Your task to perform on an android device: find snoozed emails in the gmail app Image 0: 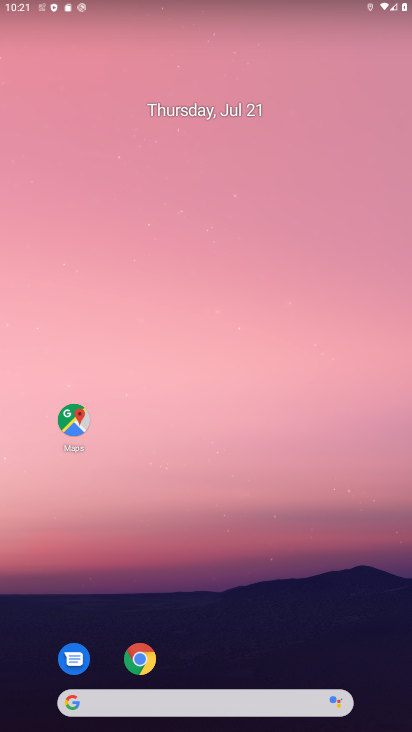
Step 0: drag from (223, 677) to (62, 132)
Your task to perform on an android device: find snoozed emails in the gmail app Image 1: 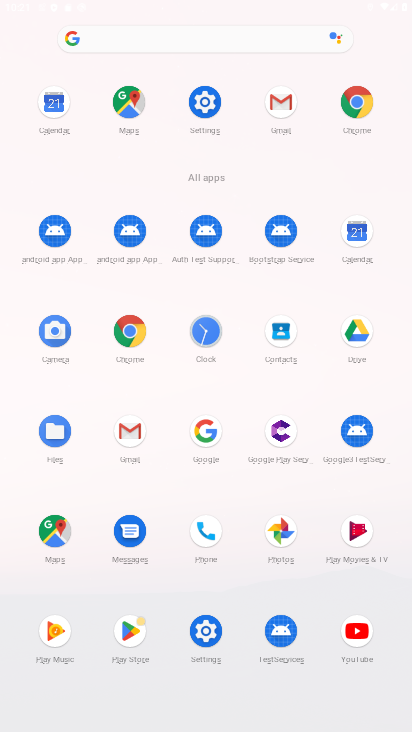
Step 1: click (134, 423)
Your task to perform on an android device: find snoozed emails in the gmail app Image 2: 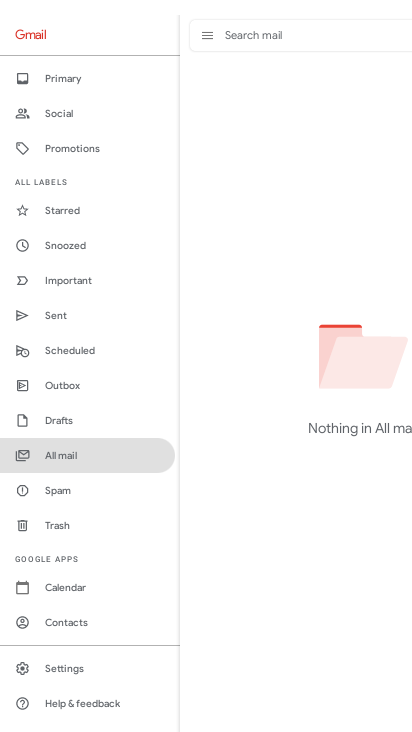
Step 2: click (60, 242)
Your task to perform on an android device: find snoozed emails in the gmail app Image 3: 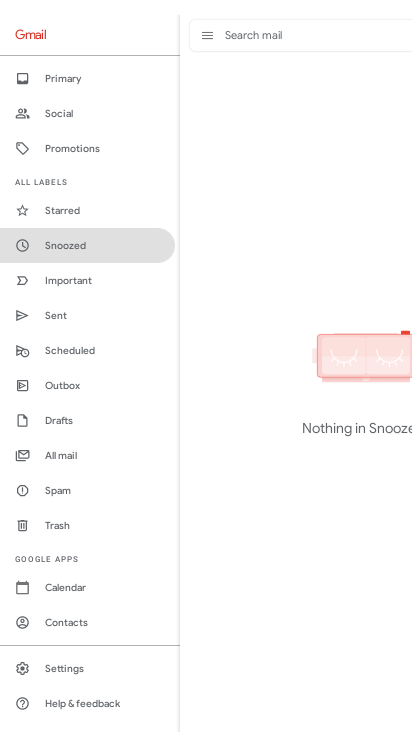
Step 3: task complete